Your task to perform on an android device: Go to sound settings Image 0: 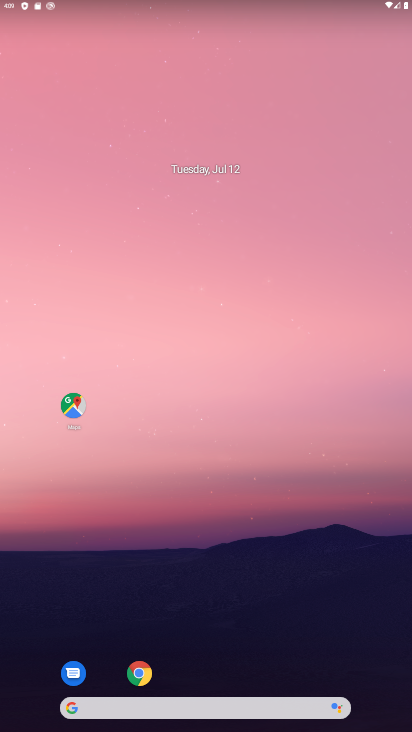
Step 0: drag from (281, 646) to (300, 139)
Your task to perform on an android device: Go to sound settings Image 1: 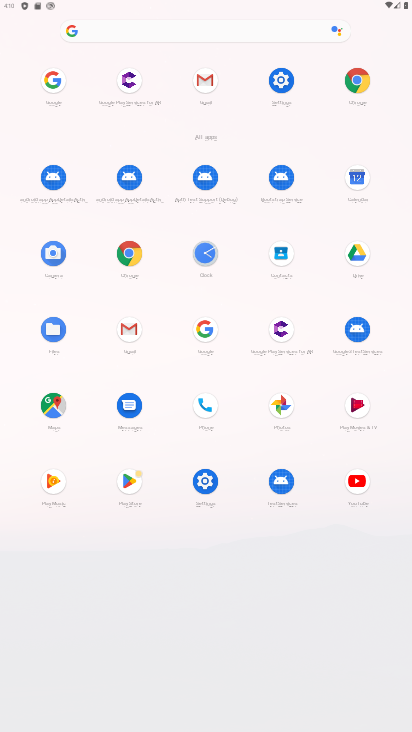
Step 1: click (279, 84)
Your task to perform on an android device: Go to sound settings Image 2: 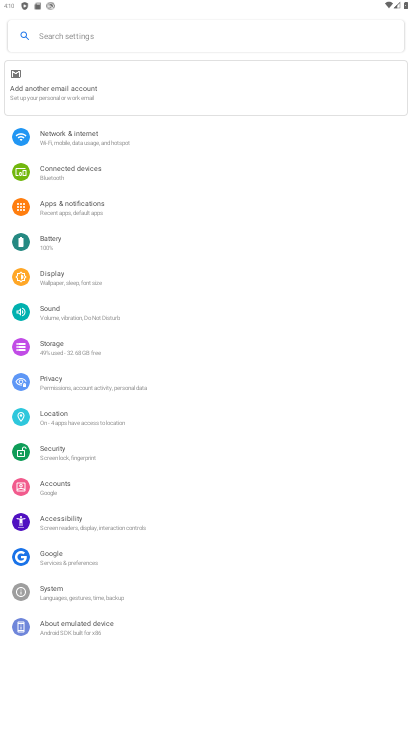
Step 2: click (67, 304)
Your task to perform on an android device: Go to sound settings Image 3: 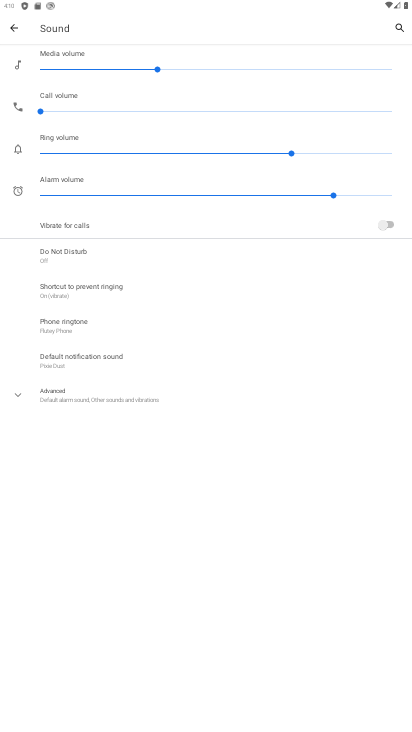
Step 3: task complete